Your task to perform on an android device: What's the weather? Image 0: 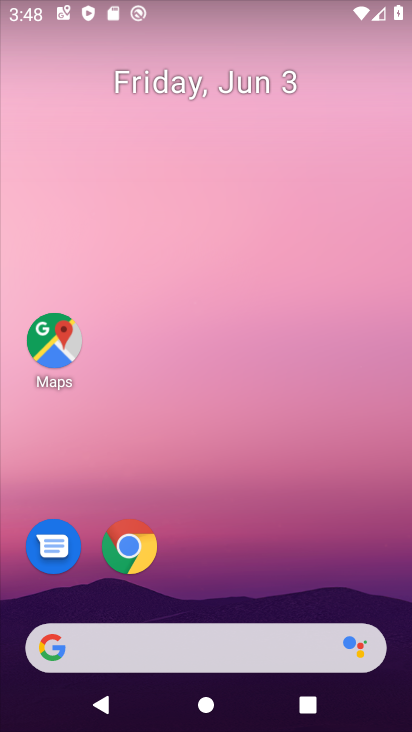
Step 0: click (183, 655)
Your task to perform on an android device: What's the weather? Image 1: 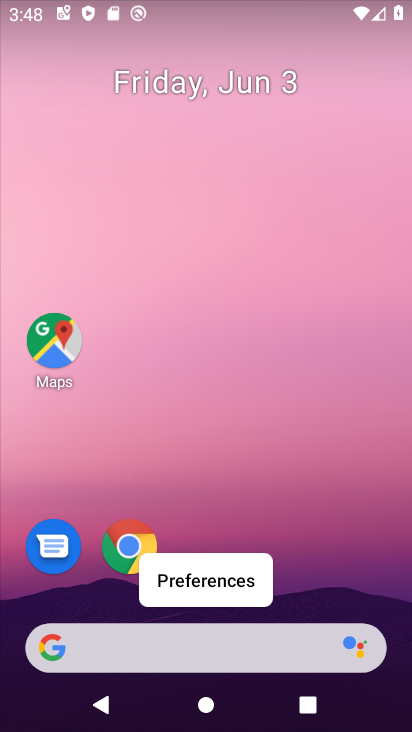
Step 1: click (136, 643)
Your task to perform on an android device: What's the weather? Image 2: 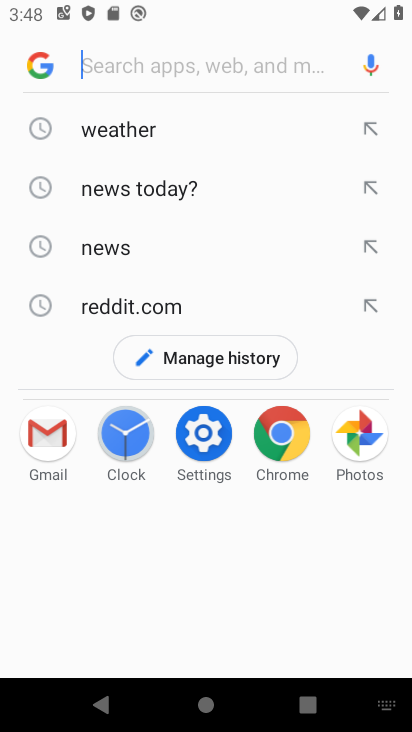
Step 2: click (100, 122)
Your task to perform on an android device: What's the weather? Image 3: 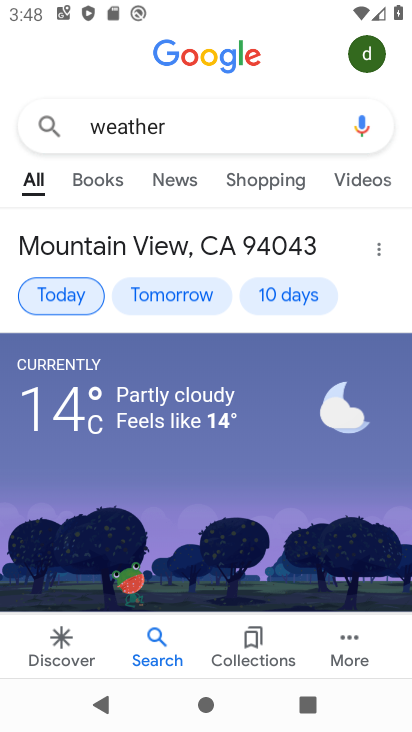
Step 3: click (72, 300)
Your task to perform on an android device: What's the weather? Image 4: 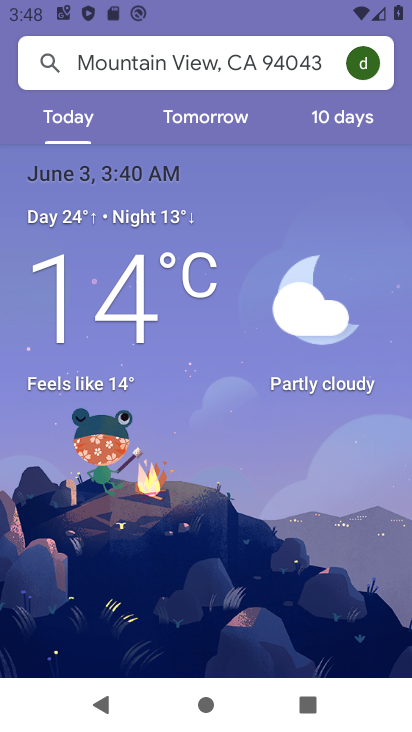
Step 4: task complete